Your task to perform on an android device: check battery use Image 0: 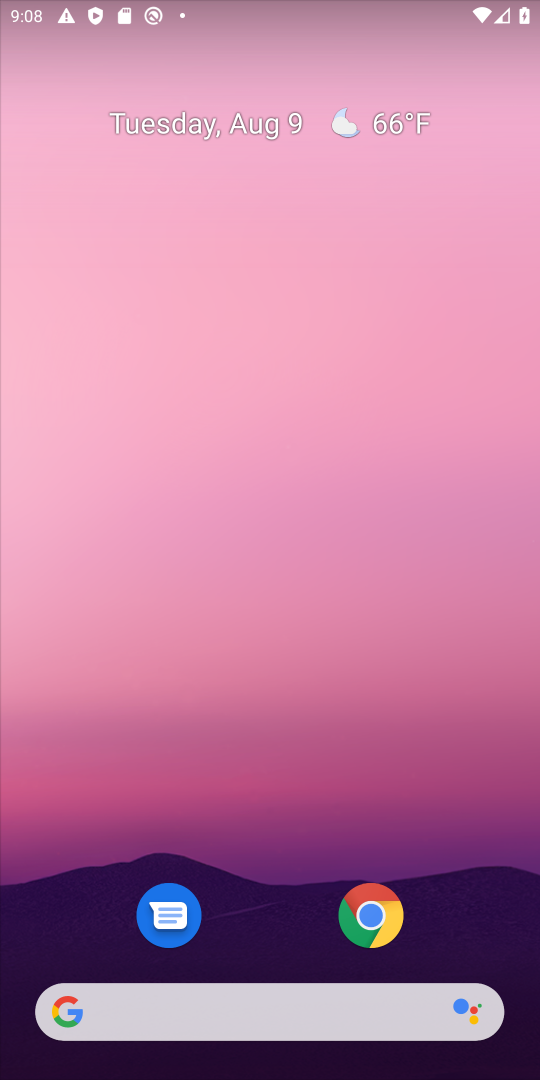
Step 0: drag from (262, 889) to (117, 2)
Your task to perform on an android device: check battery use Image 1: 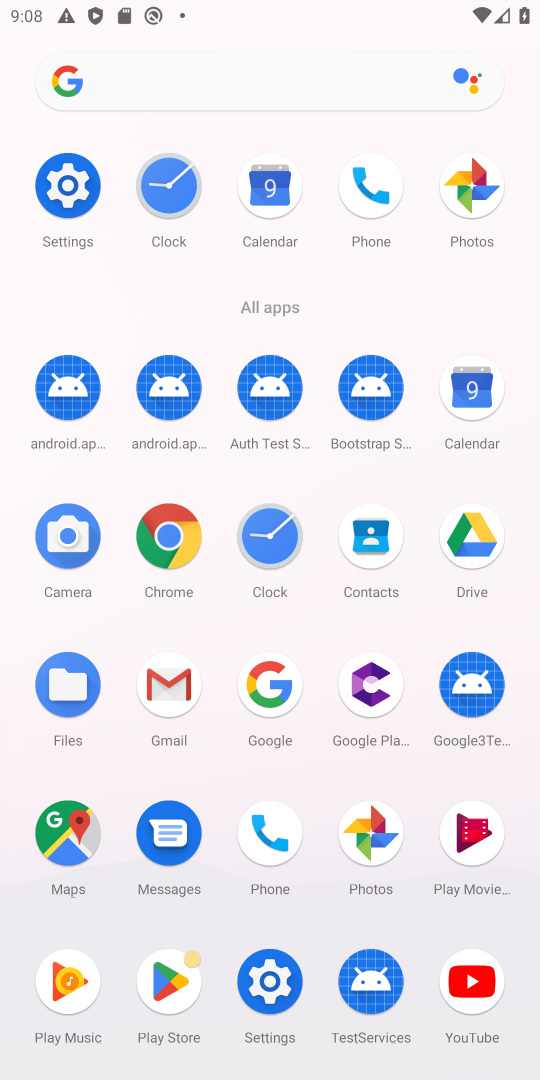
Step 1: click (71, 192)
Your task to perform on an android device: check battery use Image 2: 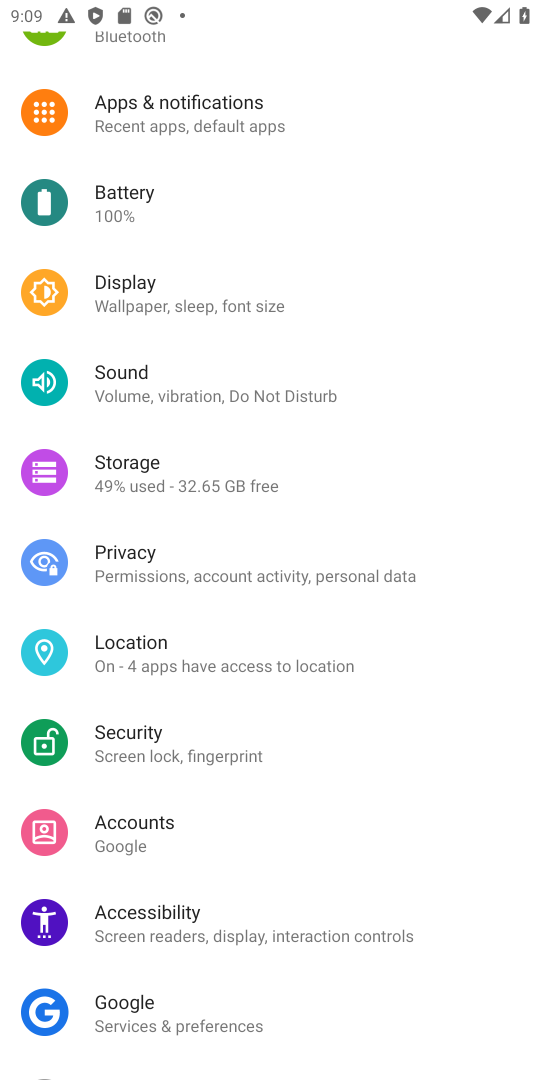
Step 2: click (142, 200)
Your task to perform on an android device: check battery use Image 3: 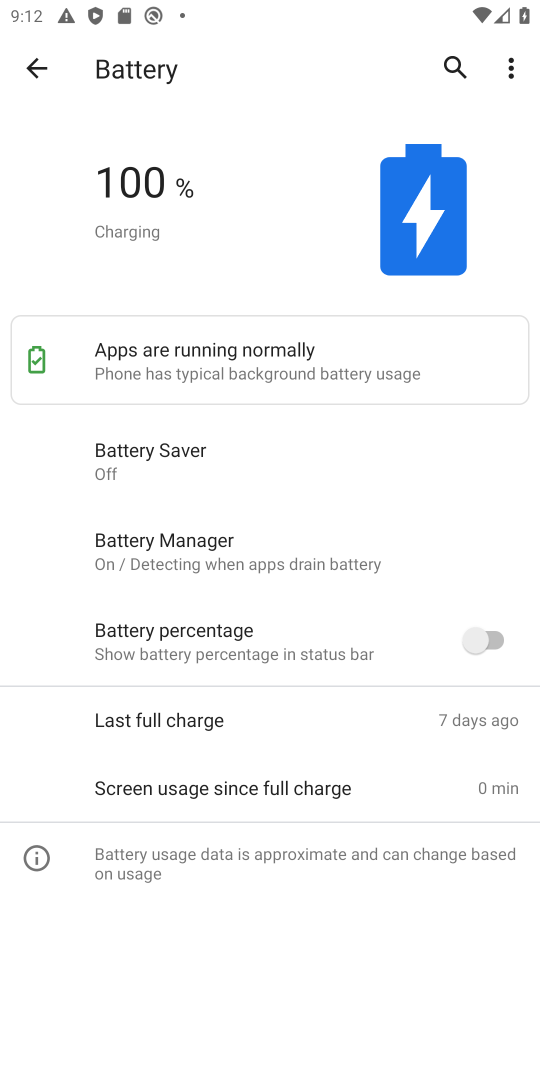
Step 3: task complete